Your task to perform on an android device: create a new album in the google photos Image 0: 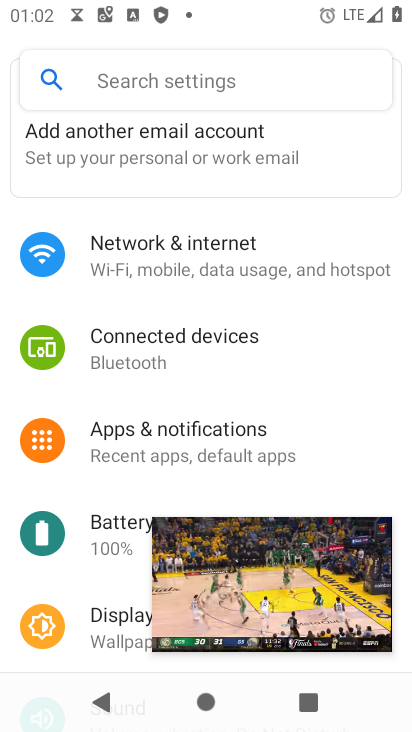
Step 0: click (374, 522)
Your task to perform on an android device: create a new album in the google photos Image 1: 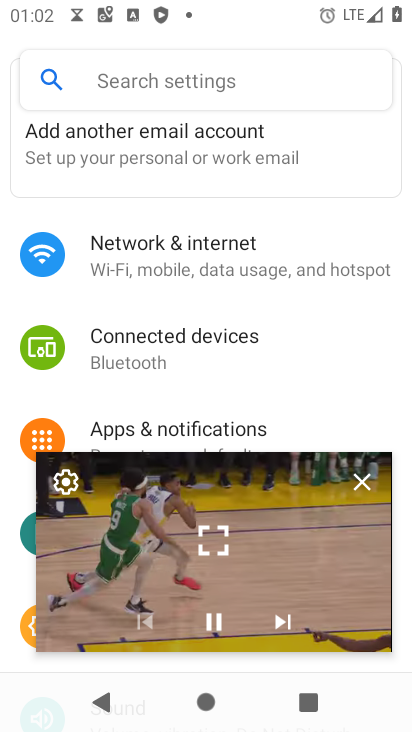
Step 1: click (356, 474)
Your task to perform on an android device: create a new album in the google photos Image 2: 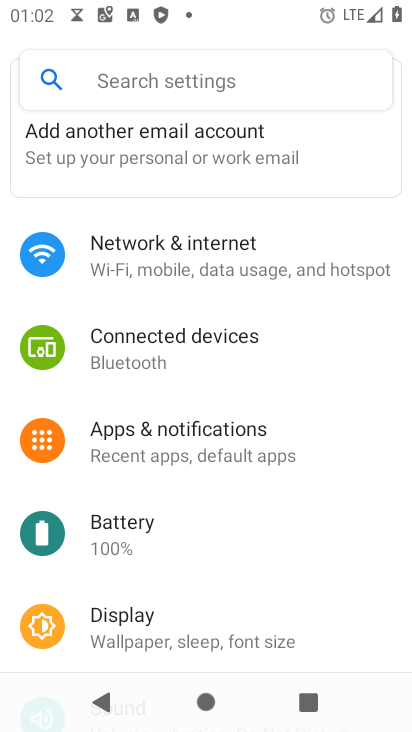
Step 2: press home button
Your task to perform on an android device: create a new album in the google photos Image 3: 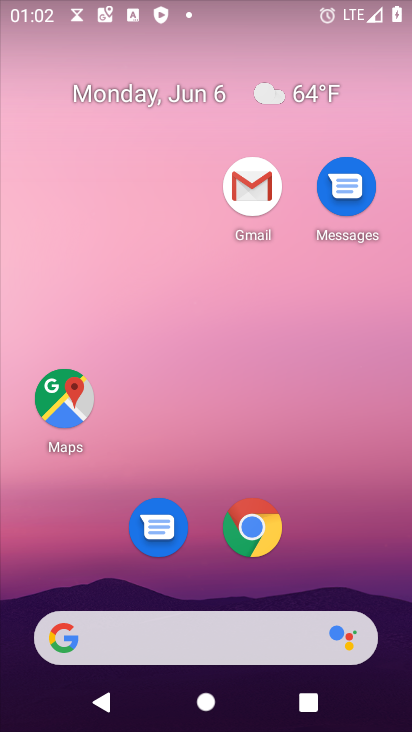
Step 3: drag from (325, 492) to (310, 69)
Your task to perform on an android device: create a new album in the google photos Image 4: 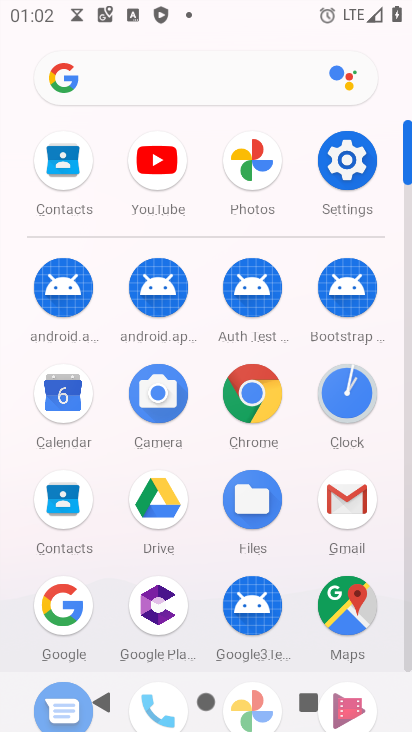
Step 4: drag from (254, 609) to (283, 199)
Your task to perform on an android device: create a new album in the google photos Image 5: 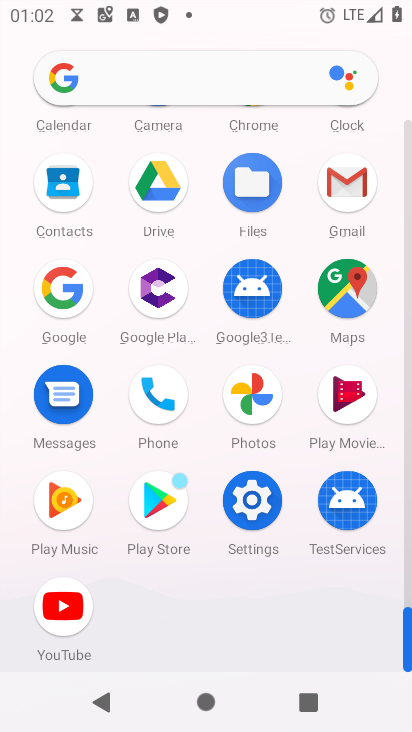
Step 5: click (251, 389)
Your task to perform on an android device: create a new album in the google photos Image 6: 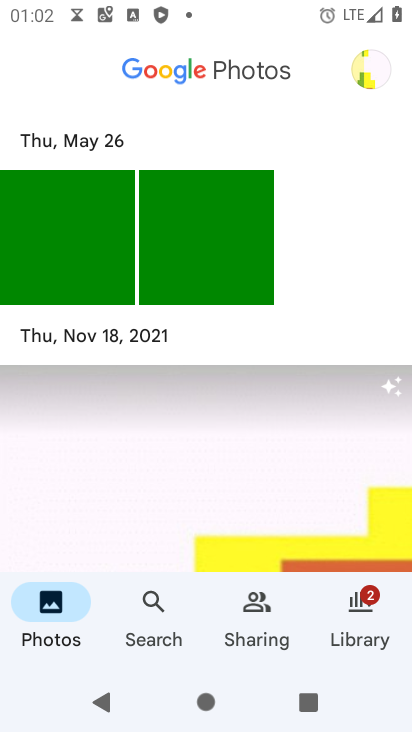
Step 6: click (297, 552)
Your task to perform on an android device: create a new album in the google photos Image 7: 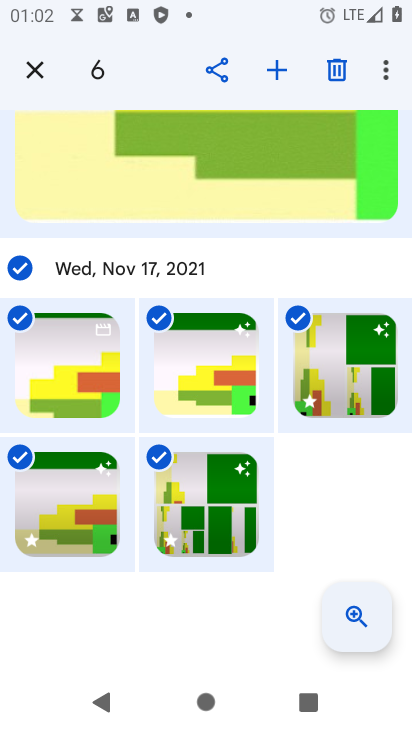
Step 7: click (272, 63)
Your task to perform on an android device: create a new album in the google photos Image 8: 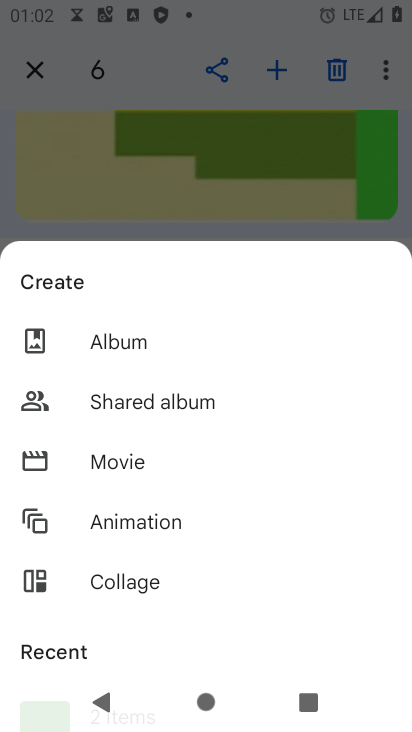
Step 8: click (139, 340)
Your task to perform on an android device: create a new album in the google photos Image 9: 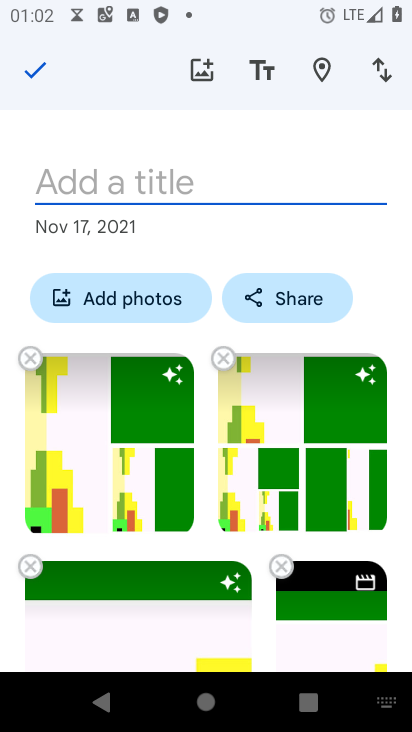
Step 9: type "ssid"
Your task to perform on an android device: create a new album in the google photos Image 10: 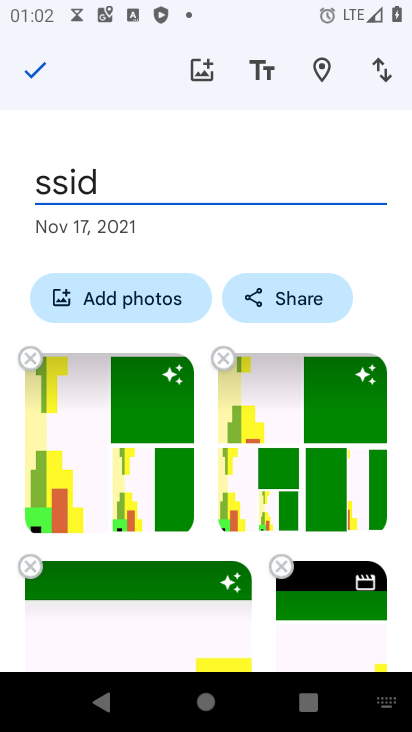
Step 10: click (42, 62)
Your task to perform on an android device: create a new album in the google photos Image 11: 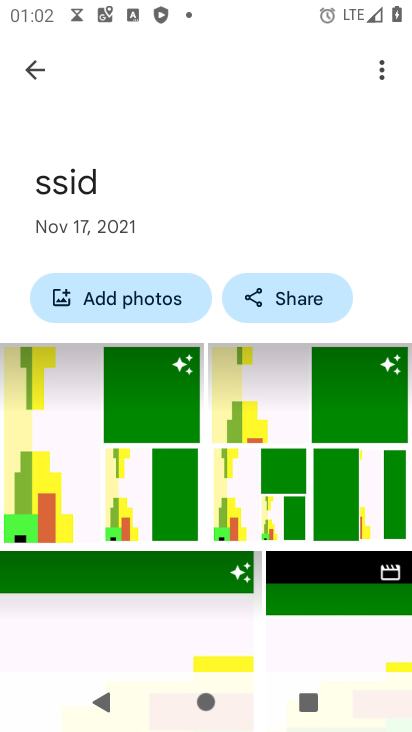
Step 11: task complete